Your task to perform on an android device: Go to display settings Image 0: 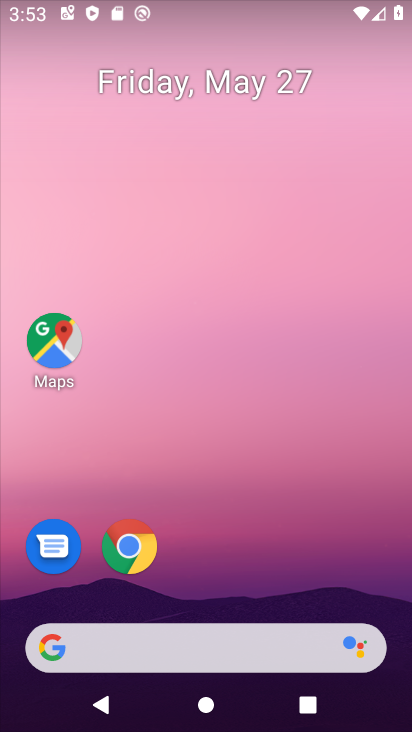
Step 0: drag from (233, 581) to (273, 195)
Your task to perform on an android device: Go to display settings Image 1: 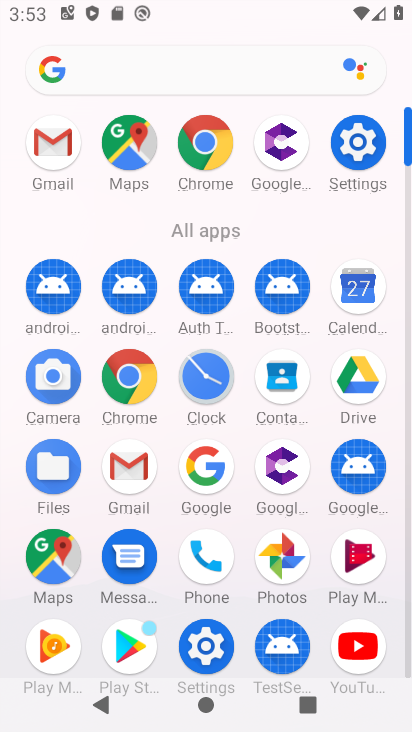
Step 1: click (358, 135)
Your task to perform on an android device: Go to display settings Image 2: 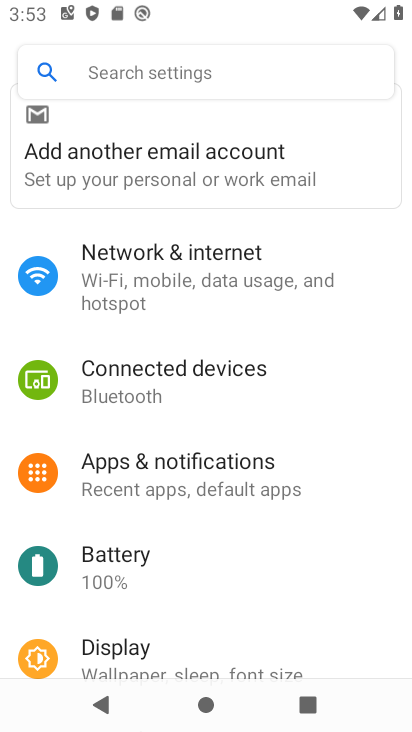
Step 2: click (157, 647)
Your task to perform on an android device: Go to display settings Image 3: 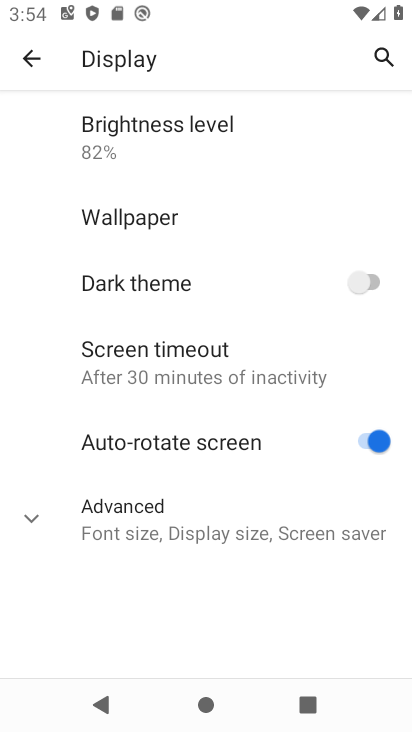
Step 3: click (37, 518)
Your task to perform on an android device: Go to display settings Image 4: 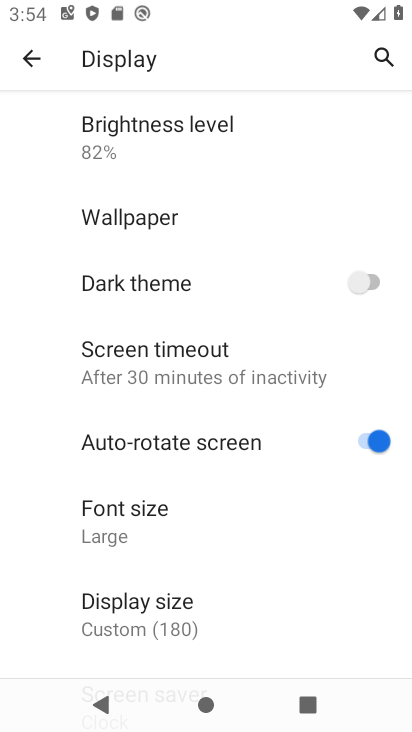
Step 4: task complete